Your task to perform on an android device: change text size in settings app Image 0: 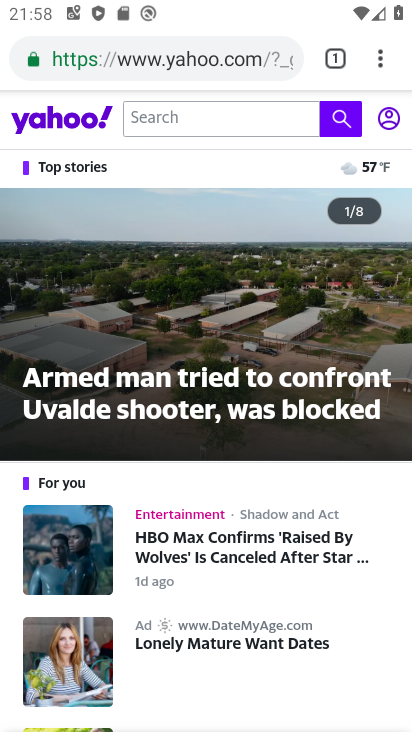
Step 0: press home button
Your task to perform on an android device: change text size in settings app Image 1: 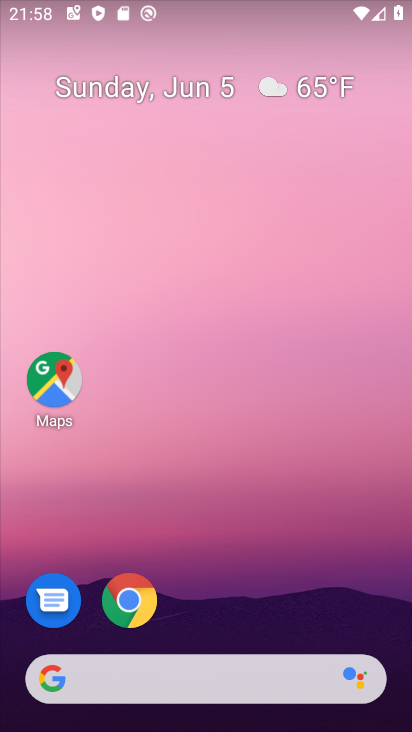
Step 1: drag from (357, 597) to (289, 200)
Your task to perform on an android device: change text size in settings app Image 2: 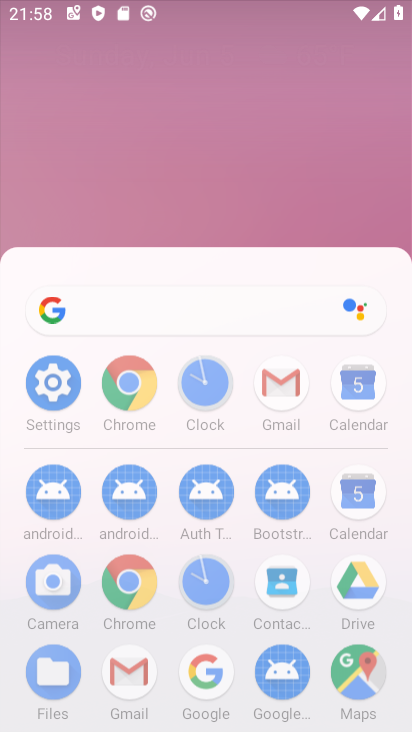
Step 2: click (289, 174)
Your task to perform on an android device: change text size in settings app Image 3: 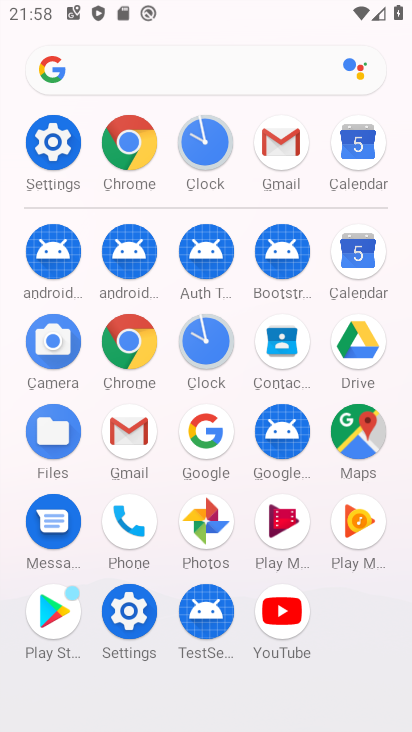
Step 3: click (47, 148)
Your task to perform on an android device: change text size in settings app Image 4: 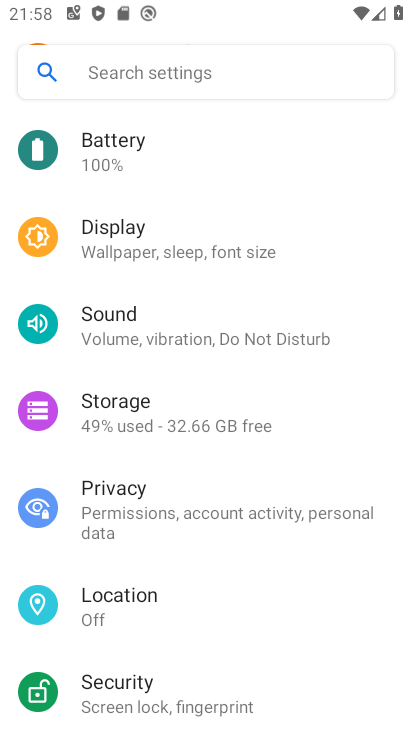
Step 4: drag from (251, 587) to (307, 275)
Your task to perform on an android device: change text size in settings app Image 5: 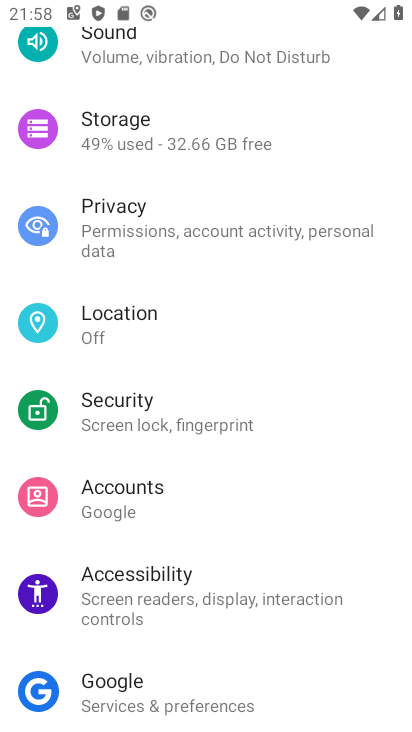
Step 5: drag from (236, 207) to (252, 622)
Your task to perform on an android device: change text size in settings app Image 6: 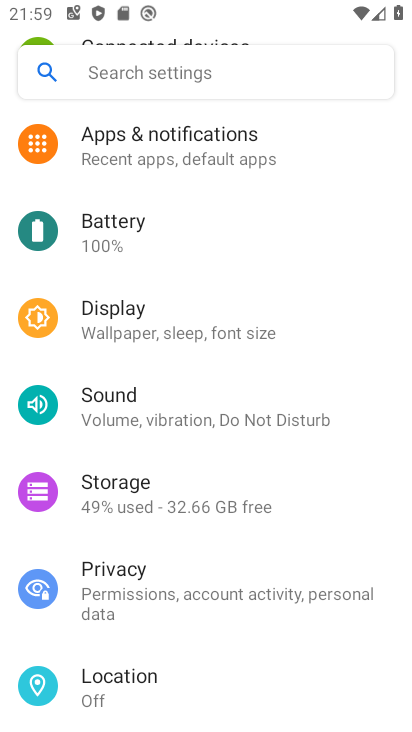
Step 6: click (198, 331)
Your task to perform on an android device: change text size in settings app Image 7: 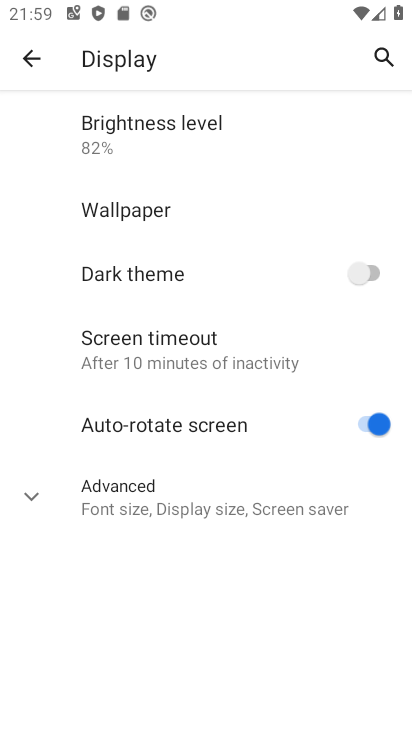
Step 7: click (177, 516)
Your task to perform on an android device: change text size in settings app Image 8: 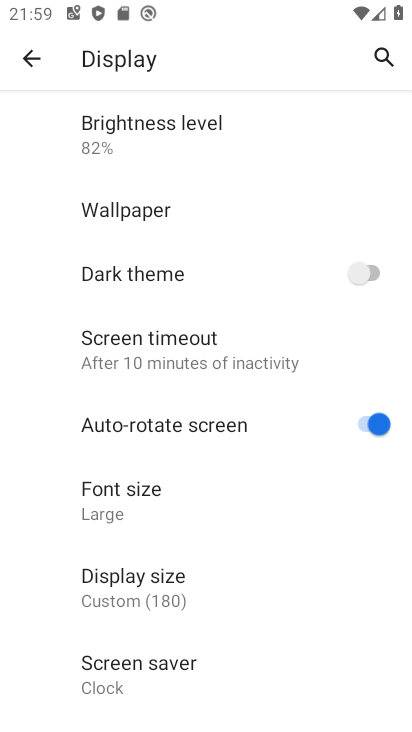
Step 8: click (149, 514)
Your task to perform on an android device: change text size in settings app Image 9: 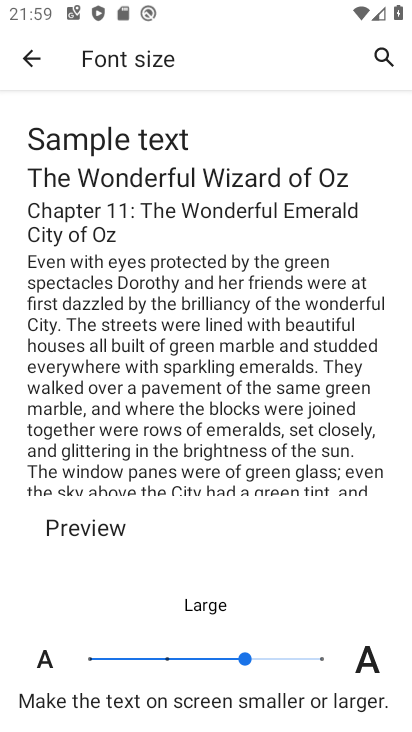
Step 9: task complete